Your task to perform on an android device: Open Chrome and go to settings Image 0: 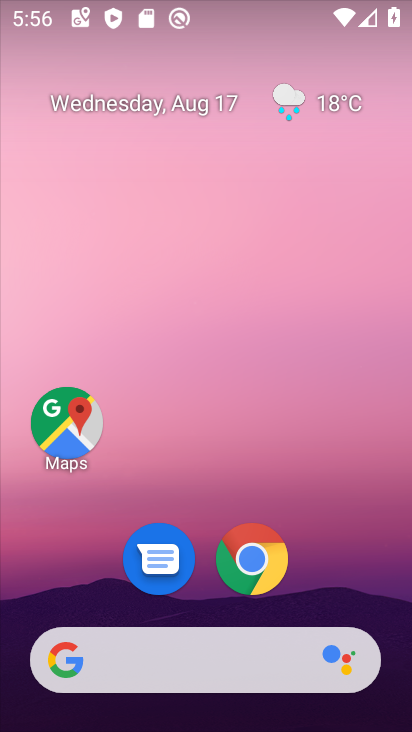
Step 0: click (276, 553)
Your task to perform on an android device: Open Chrome and go to settings Image 1: 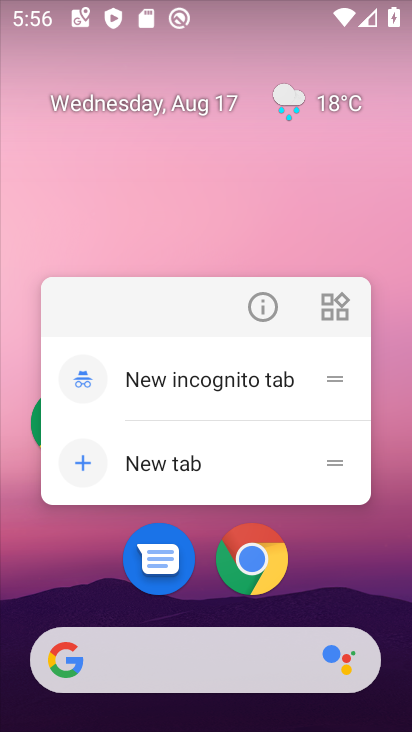
Step 1: click (276, 553)
Your task to perform on an android device: Open Chrome and go to settings Image 2: 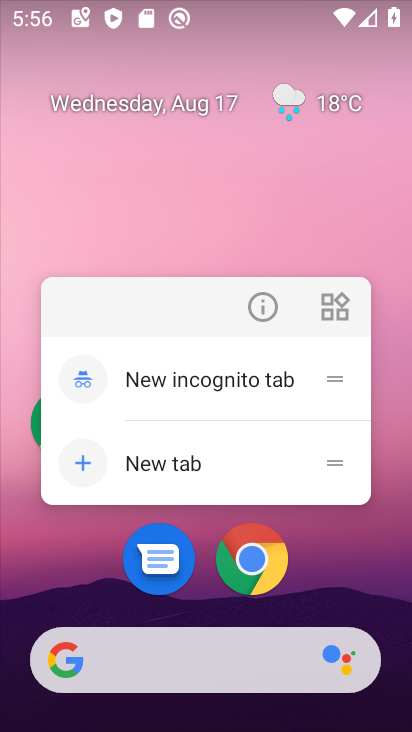
Step 2: click (276, 553)
Your task to perform on an android device: Open Chrome and go to settings Image 3: 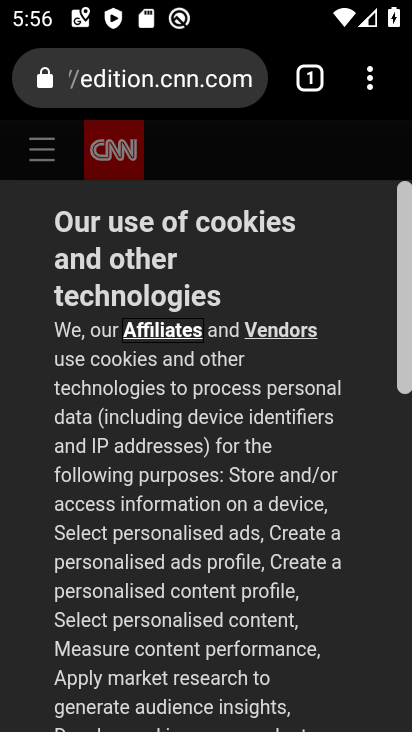
Step 3: task complete